Your task to perform on an android device: toggle data saver in the chrome app Image 0: 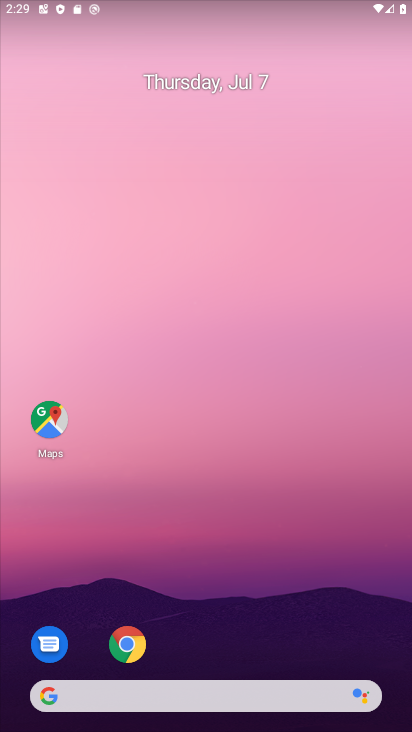
Step 0: press home button
Your task to perform on an android device: toggle data saver in the chrome app Image 1: 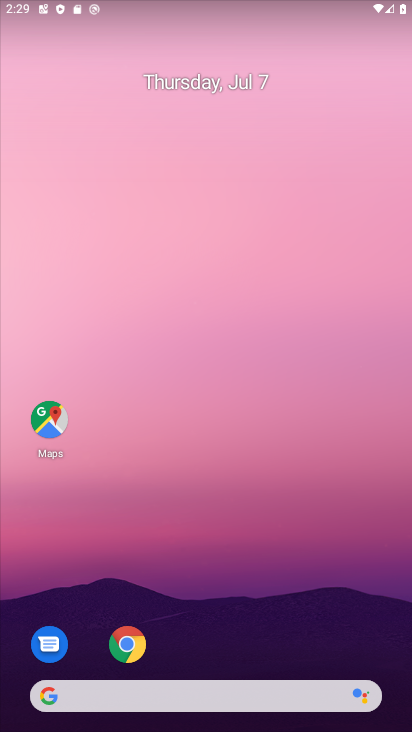
Step 1: drag from (224, 630) to (230, 5)
Your task to perform on an android device: toggle data saver in the chrome app Image 2: 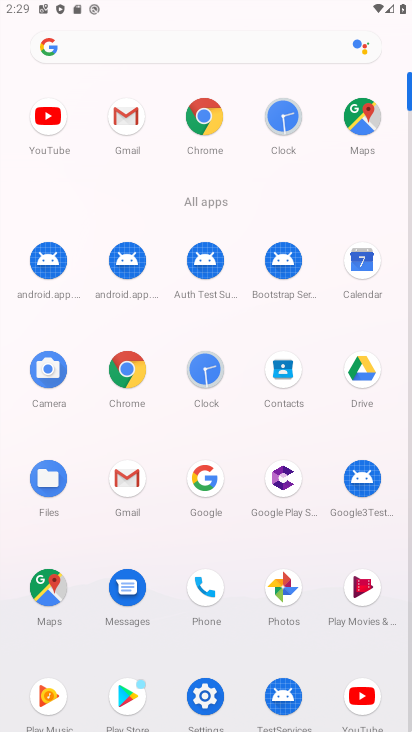
Step 2: click (197, 114)
Your task to perform on an android device: toggle data saver in the chrome app Image 3: 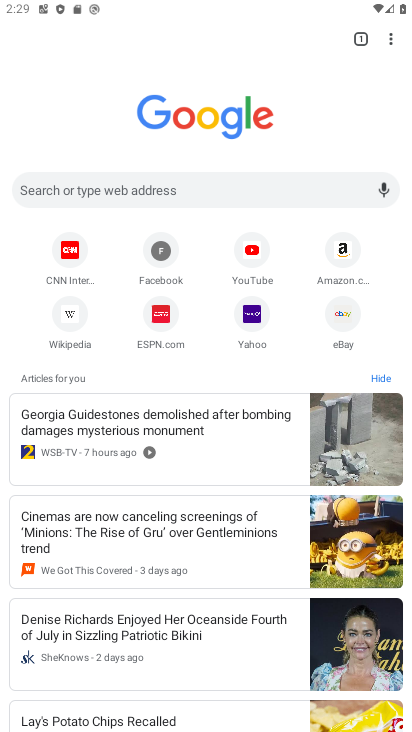
Step 3: drag from (389, 40) to (296, 320)
Your task to perform on an android device: toggle data saver in the chrome app Image 4: 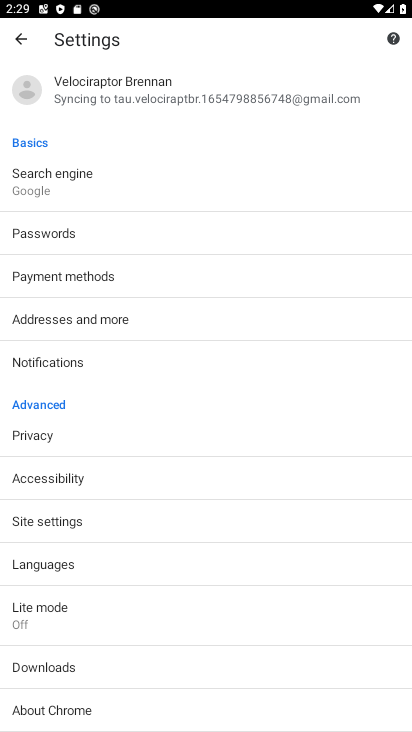
Step 4: click (52, 609)
Your task to perform on an android device: toggle data saver in the chrome app Image 5: 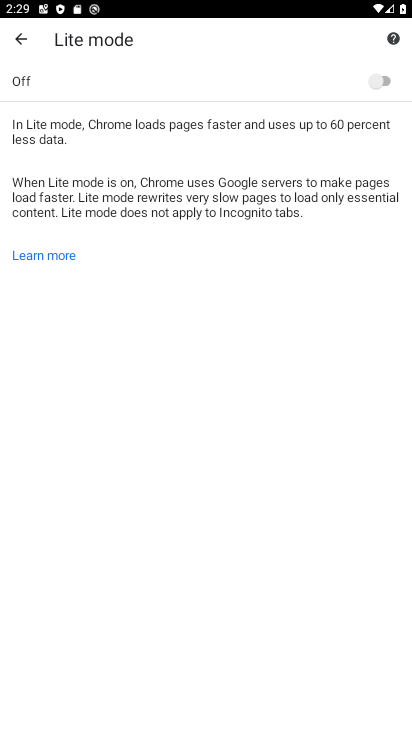
Step 5: click (371, 84)
Your task to perform on an android device: toggle data saver in the chrome app Image 6: 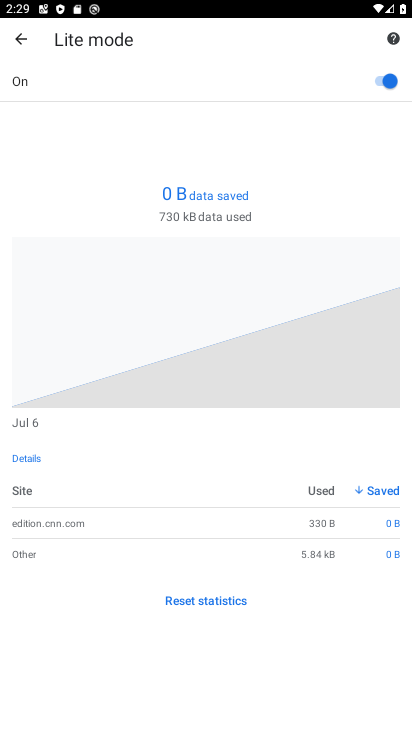
Step 6: task complete